Your task to perform on an android device: open a bookmark in the chrome app Image 0: 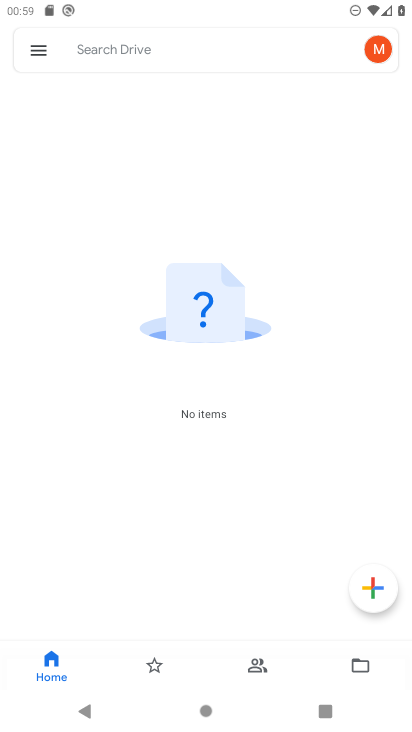
Step 0: press home button
Your task to perform on an android device: open a bookmark in the chrome app Image 1: 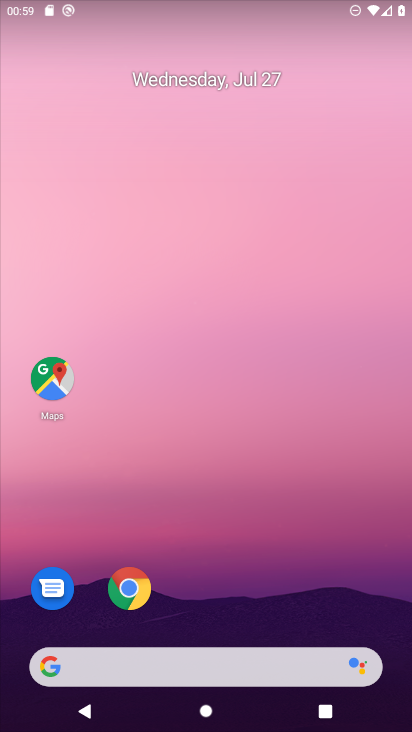
Step 1: click (138, 595)
Your task to perform on an android device: open a bookmark in the chrome app Image 2: 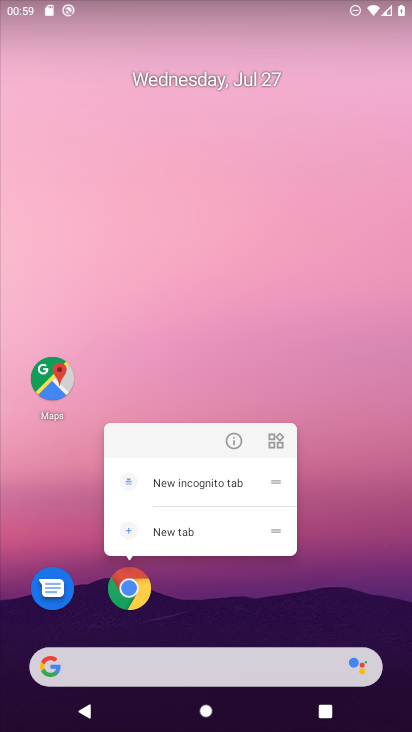
Step 2: click (133, 584)
Your task to perform on an android device: open a bookmark in the chrome app Image 3: 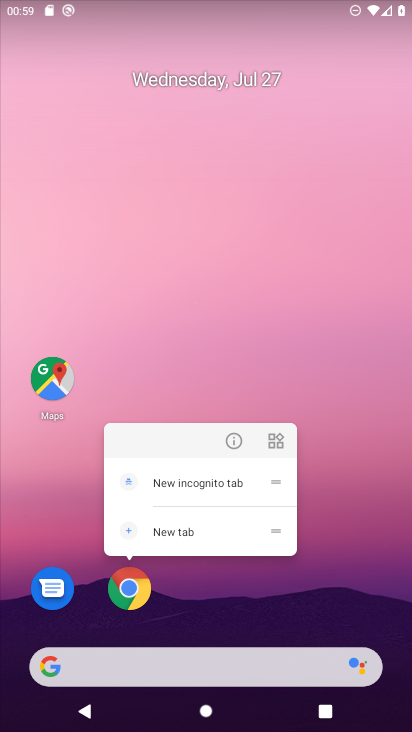
Step 3: click (126, 577)
Your task to perform on an android device: open a bookmark in the chrome app Image 4: 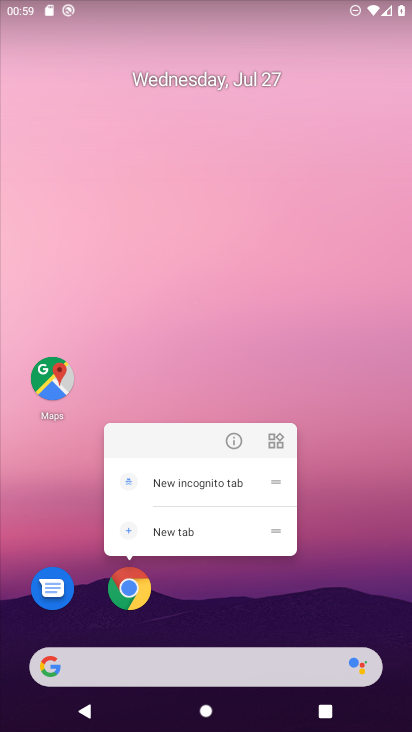
Step 4: task complete